Your task to perform on an android device: What's on my calendar today? Image 0: 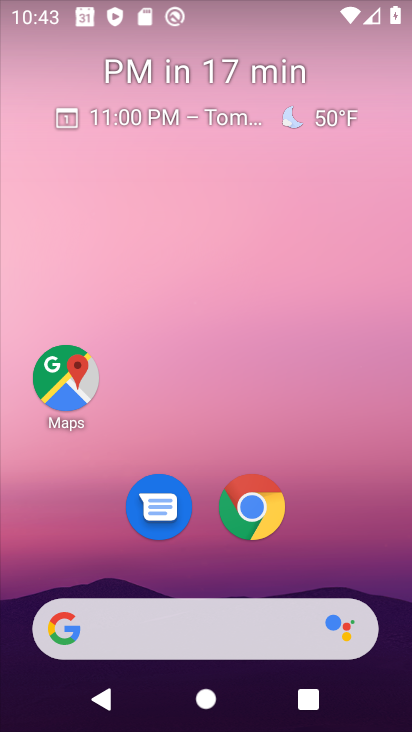
Step 0: drag from (290, 568) to (288, 96)
Your task to perform on an android device: What's on my calendar today? Image 1: 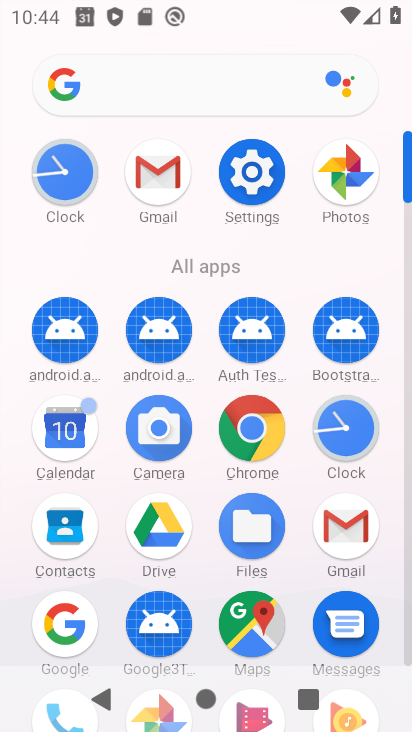
Step 1: click (85, 432)
Your task to perform on an android device: What's on my calendar today? Image 2: 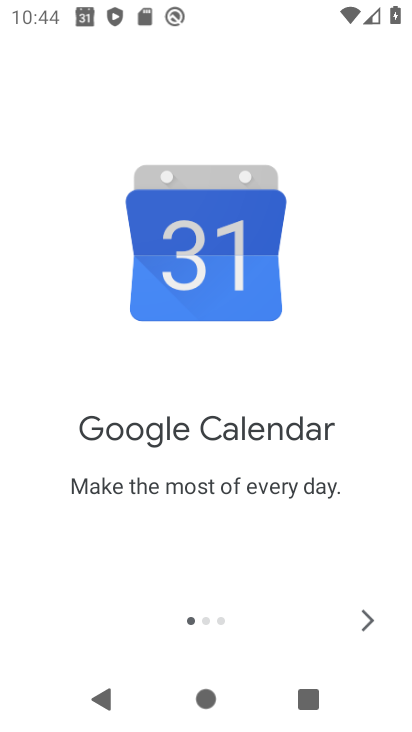
Step 2: click (372, 615)
Your task to perform on an android device: What's on my calendar today? Image 3: 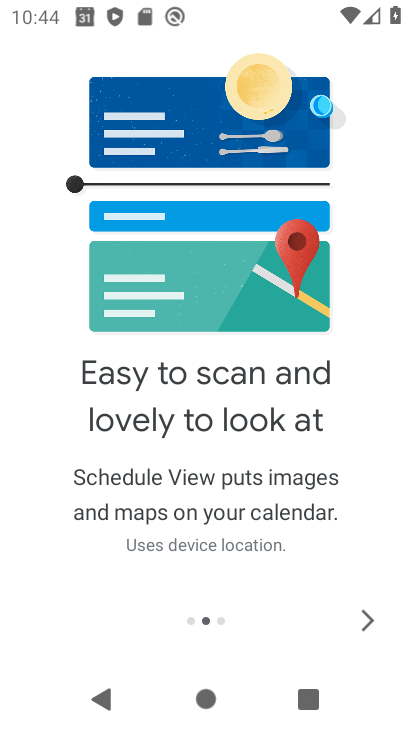
Step 3: click (372, 615)
Your task to perform on an android device: What's on my calendar today? Image 4: 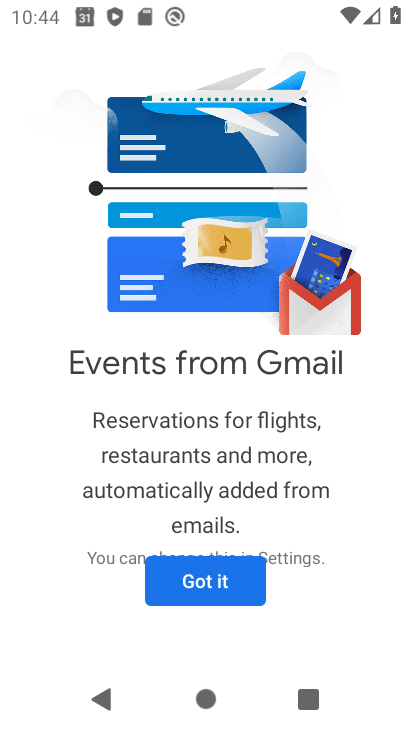
Step 4: click (372, 615)
Your task to perform on an android device: What's on my calendar today? Image 5: 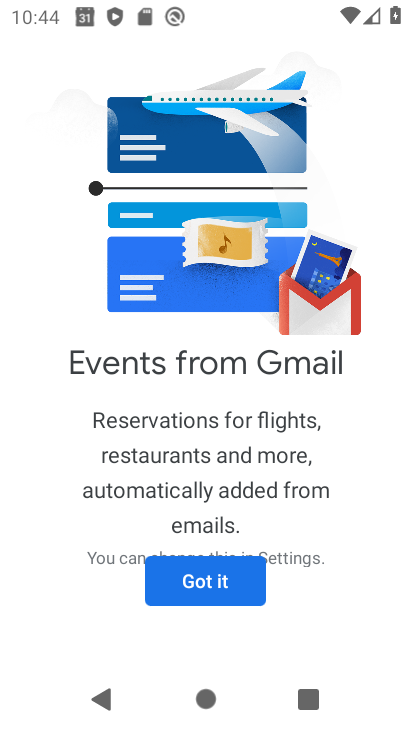
Step 5: click (177, 589)
Your task to perform on an android device: What's on my calendar today? Image 6: 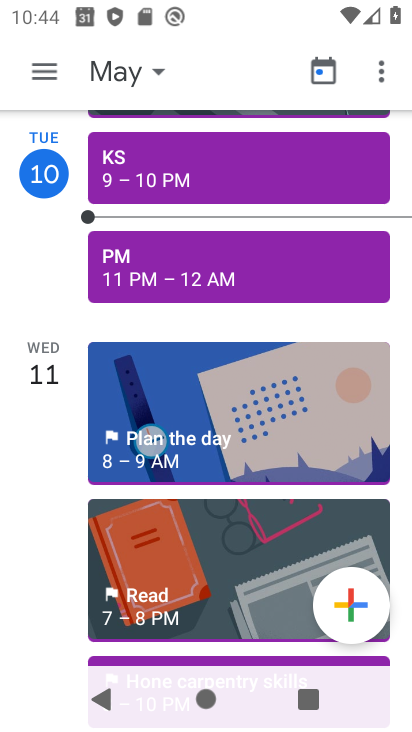
Step 6: click (42, 365)
Your task to perform on an android device: What's on my calendar today? Image 7: 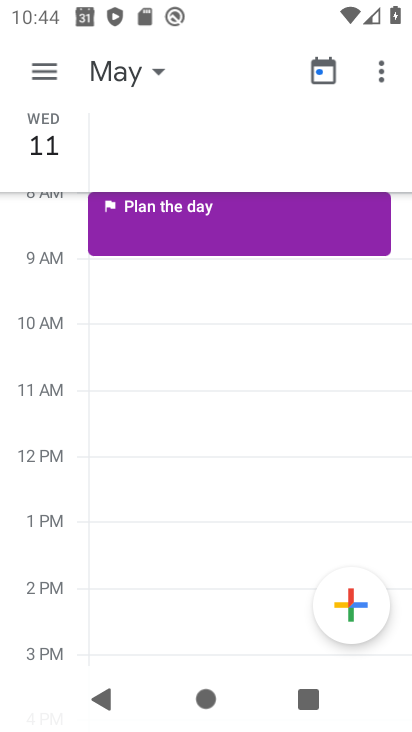
Step 7: task complete